Your task to perform on an android device: Go to Reddit.com Image 0: 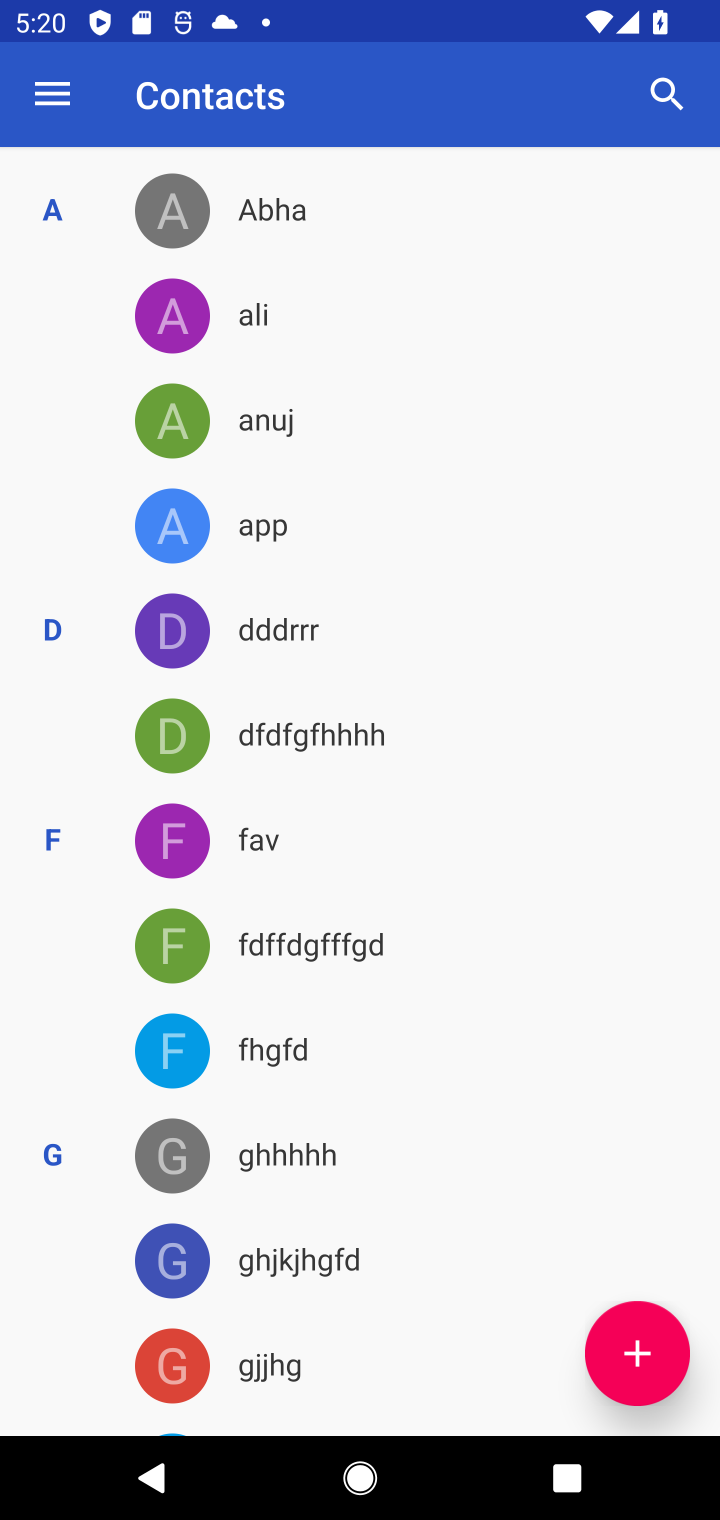
Step 0: press home button
Your task to perform on an android device: Go to Reddit.com Image 1: 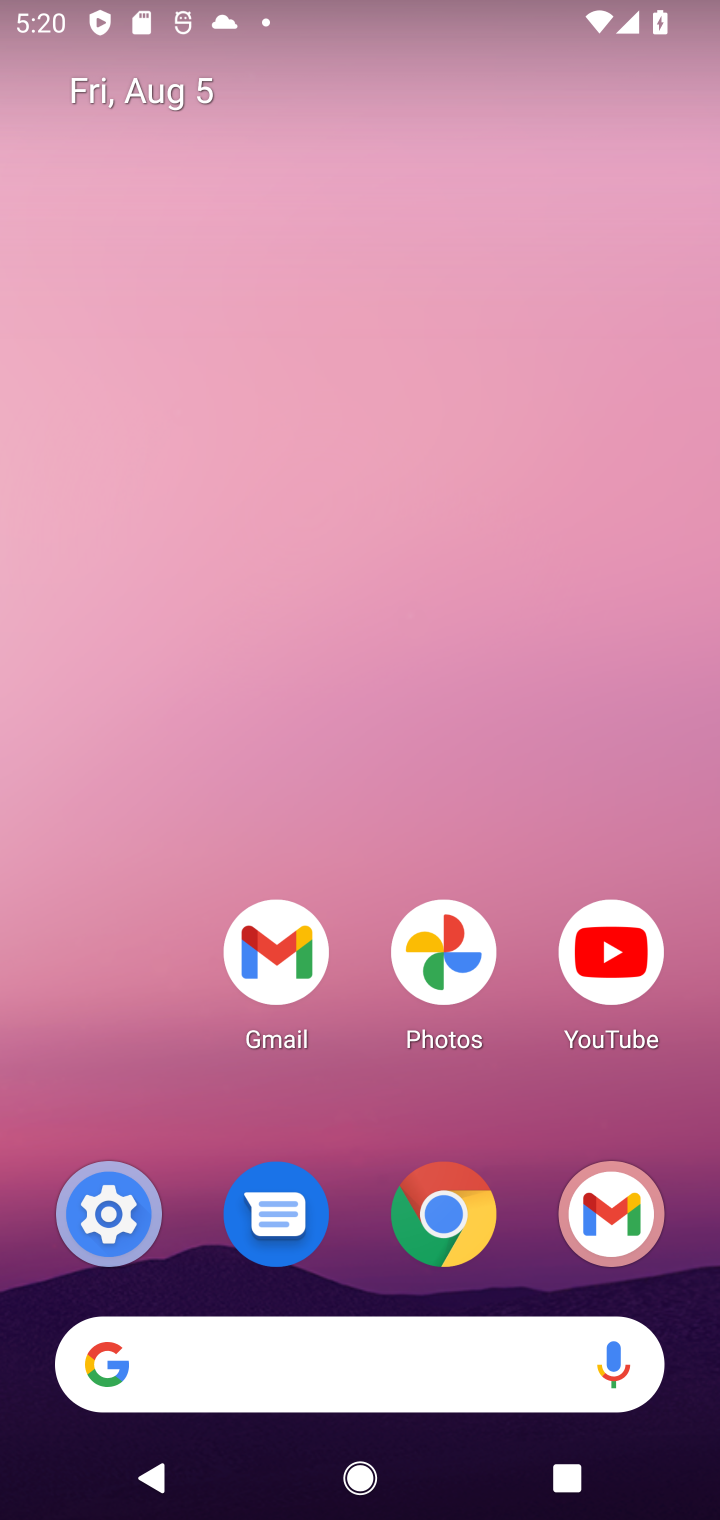
Step 1: click (450, 1369)
Your task to perform on an android device: Go to Reddit.com Image 2: 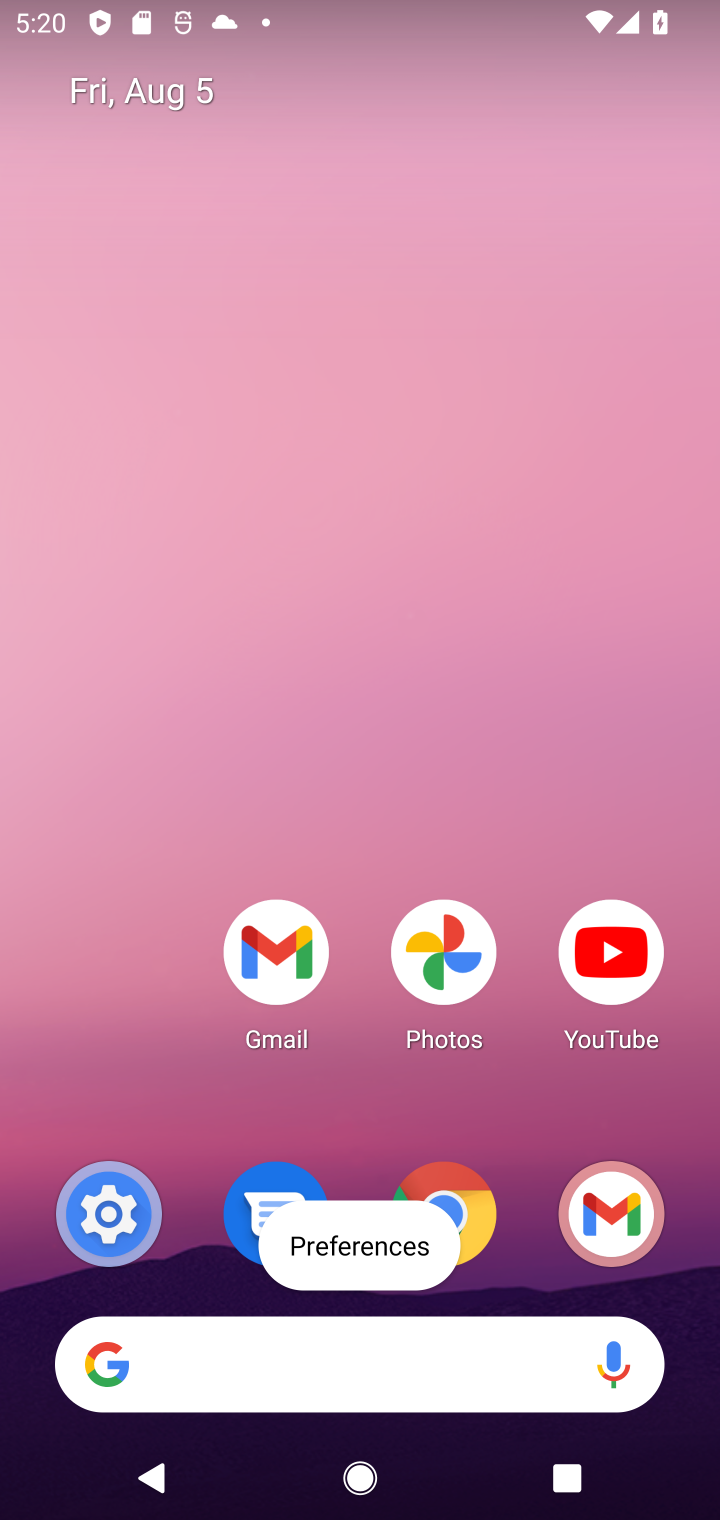
Step 2: click (443, 1375)
Your task to perform on an android device: Go to Reddit.com Image 3: 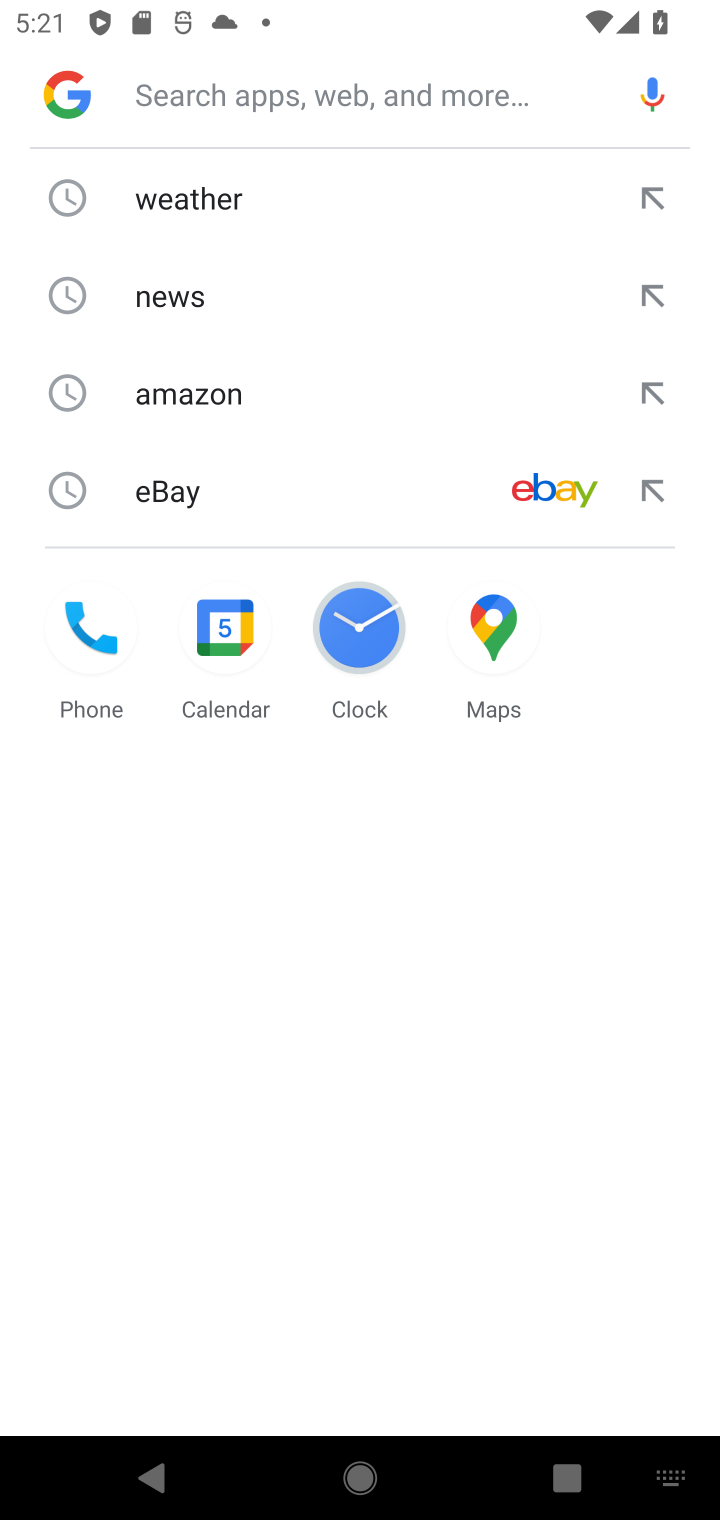
Step 3: type "reddit.com"
Your task to perform on an android device: Go to Reddit.com Image 4: 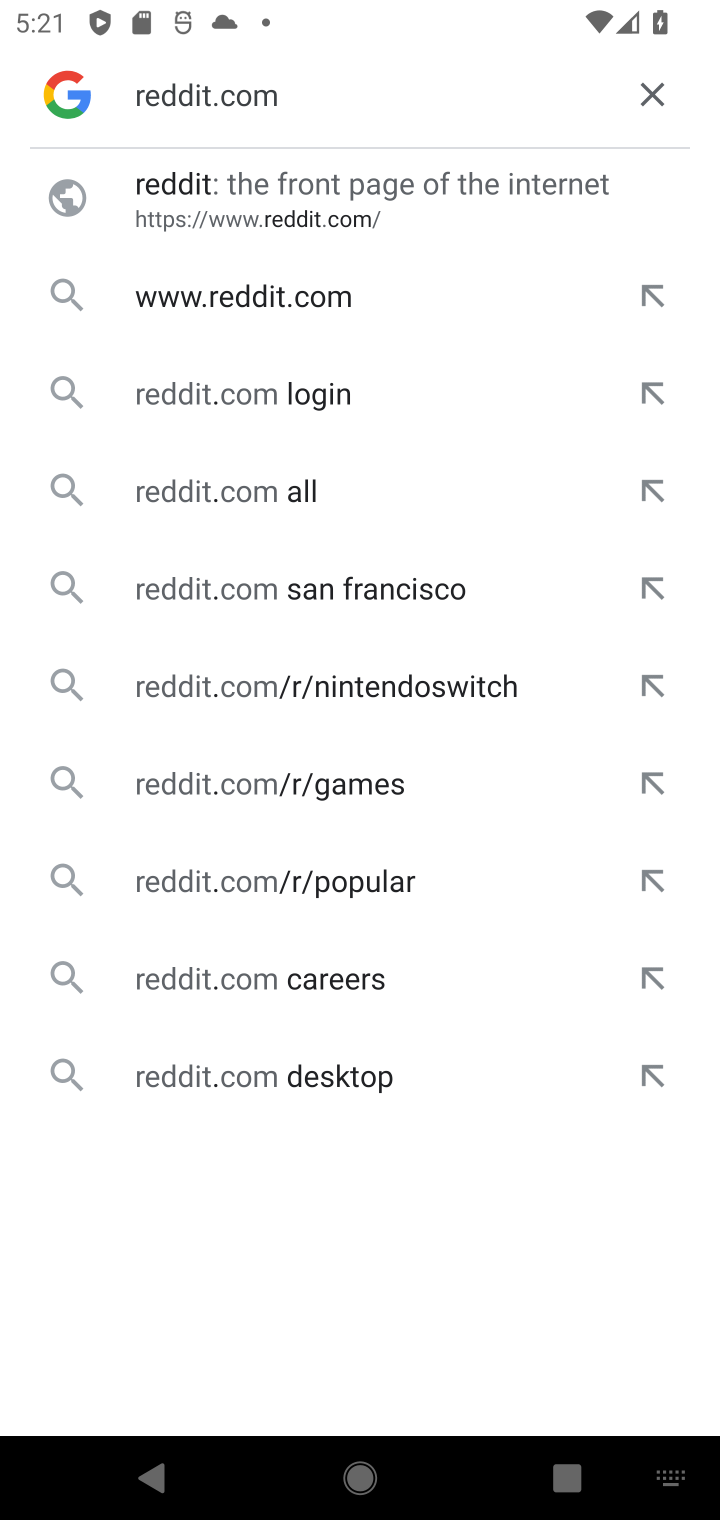
Step 4: click (351, 209)
Your task to perform on an android device: Go to Reddit.com Image 5: 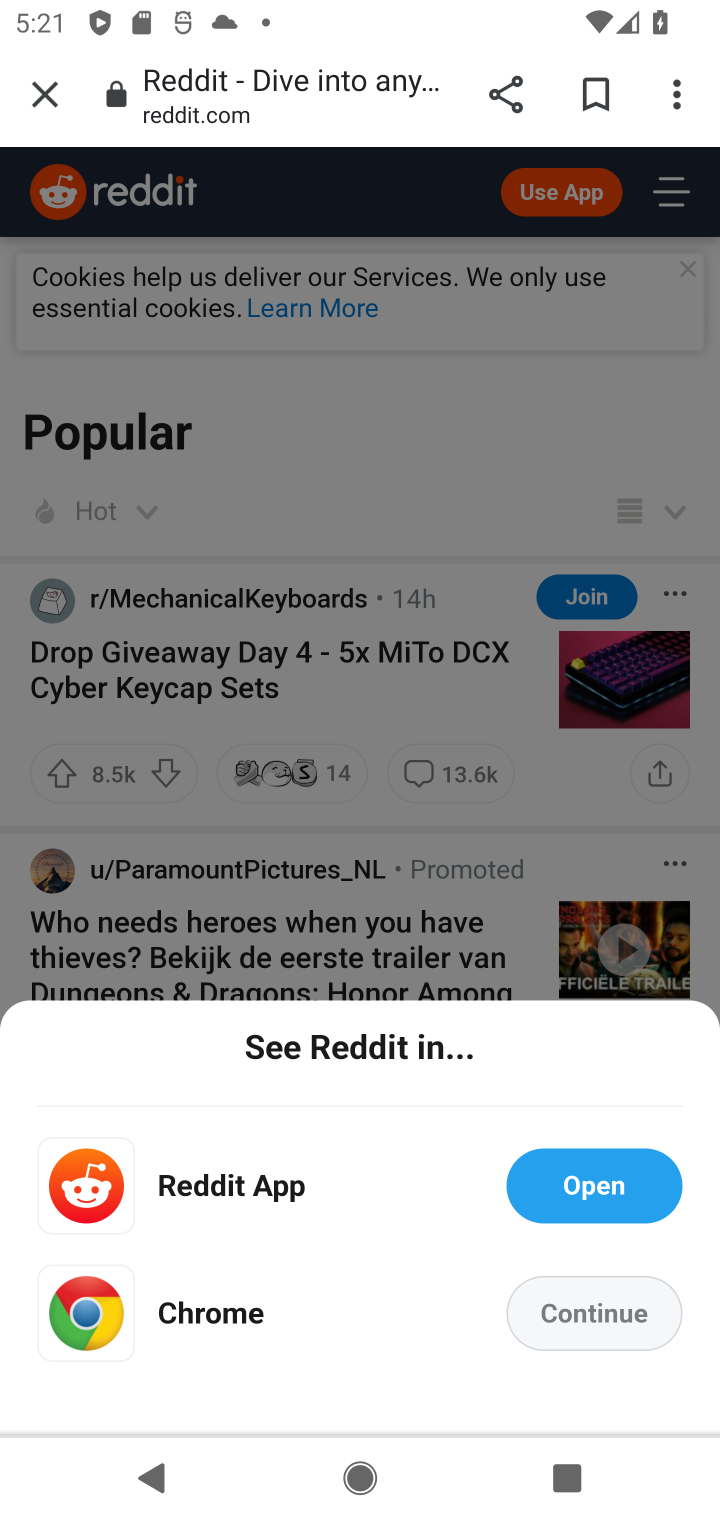
Step 5: click (626, 1299)
Your task to perform on an android device: Go to Reddit.com Image 6: 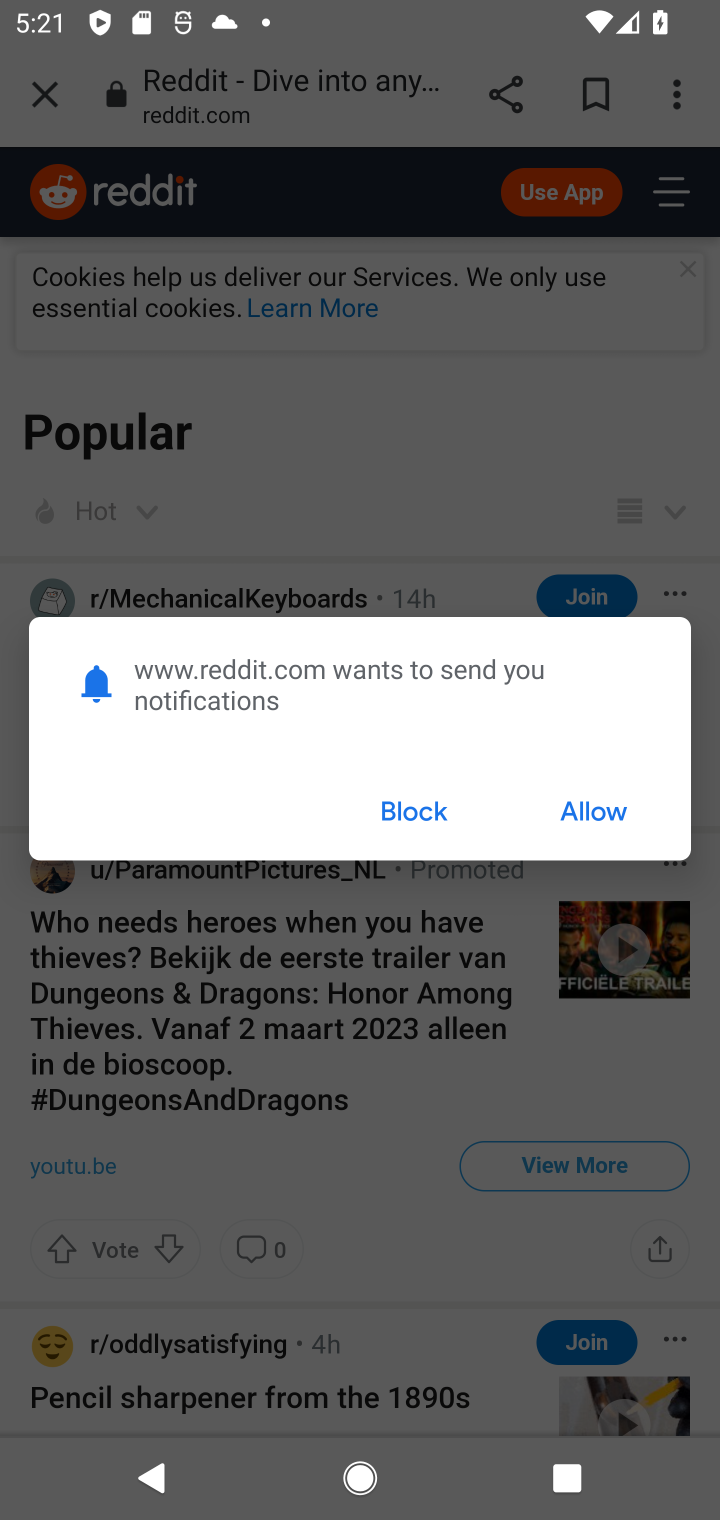
Step 6: click (430, 810)
Your task to perform on an android device: Go to Reddit.com Image 7: 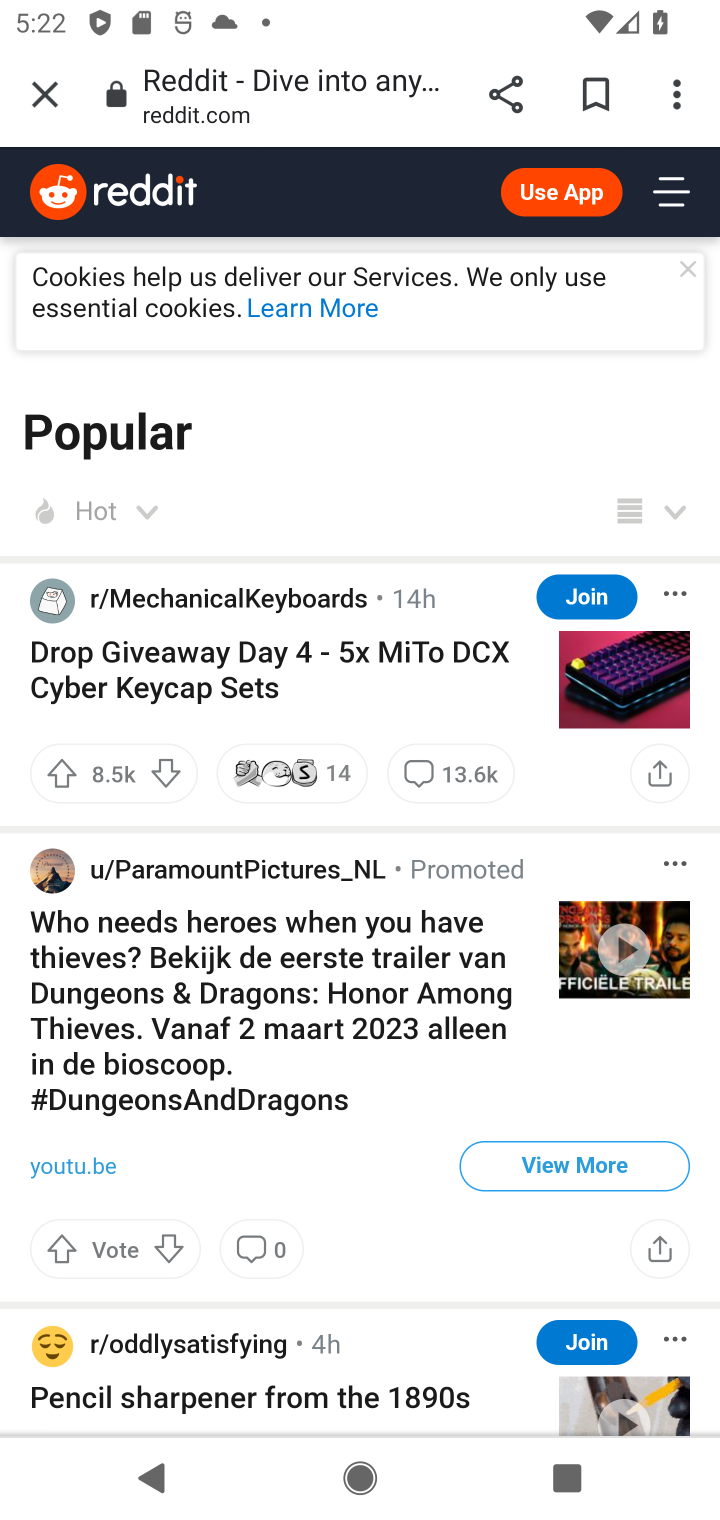
Step 7: task complete